Your task to perform on an android device: toggle sleep mode Image 0: 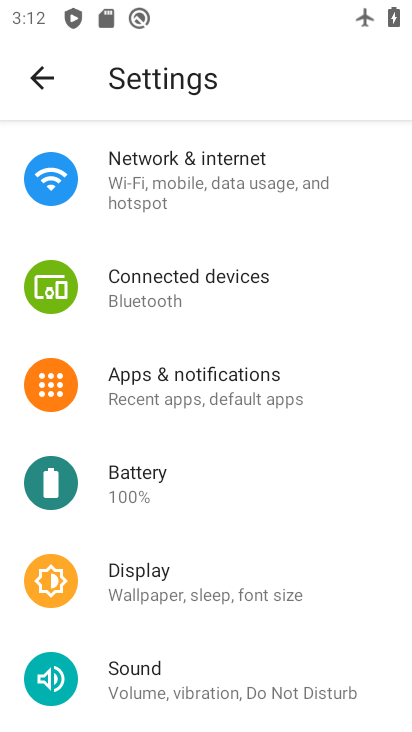
Step 0: drag from (188, 667) to (186, 372)
Your task to perform on an android device: toggle sleep mode Image 1: 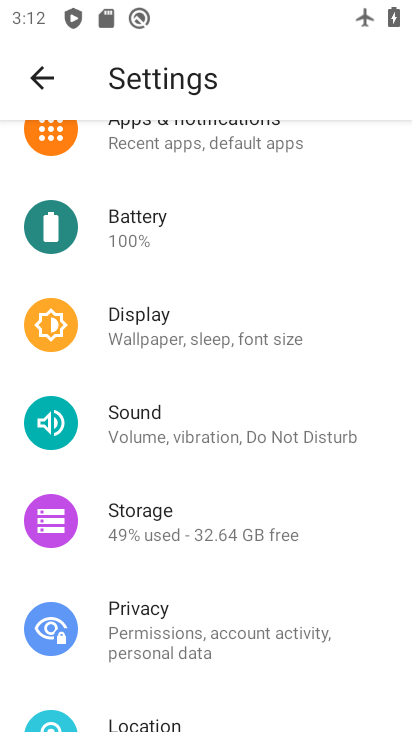
Step 1: task complete